Your task to perform on an android device: check data usage Image 0: 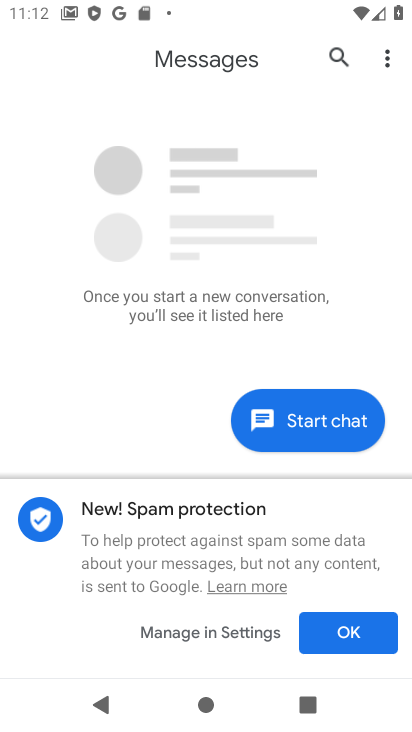
Step 0: press back button
Your task to perform on an android device: check data usage Image 1: 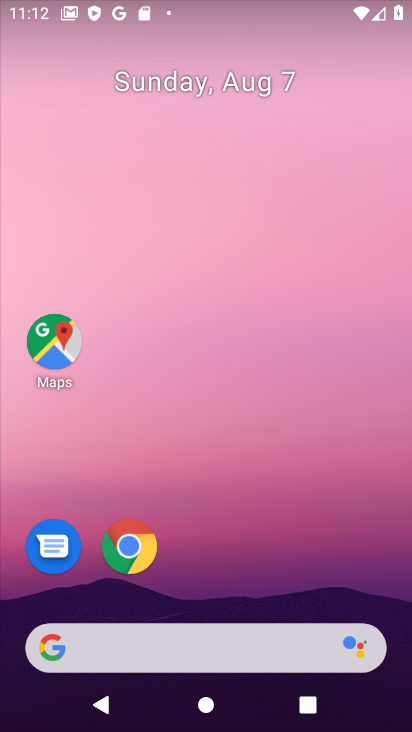
Step 1: drag from (167, 498) to (240, 270)
Your task to perform on an android device: check data usage Image 2: 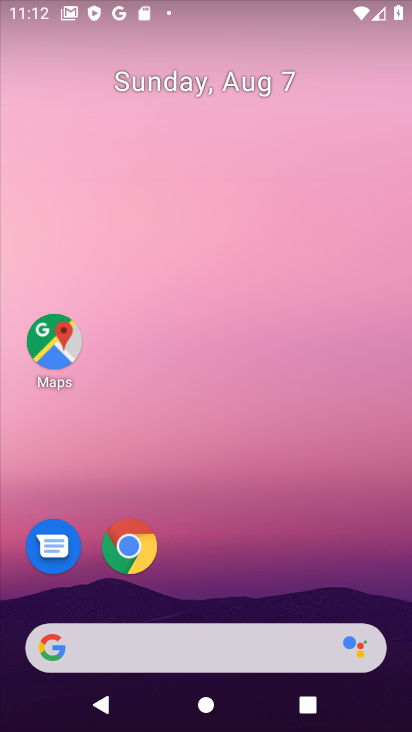
Step 2: drag from (239, 500) to (201, 193)
Your task to perform on an android device: check data usage Image 3: 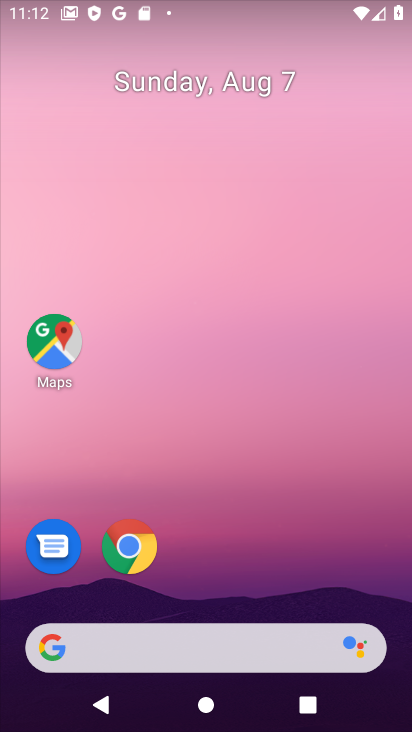
Step 3: drag from (241, 587) to (217, 371)
Your task to perform on an android device: check data usage Image 4: 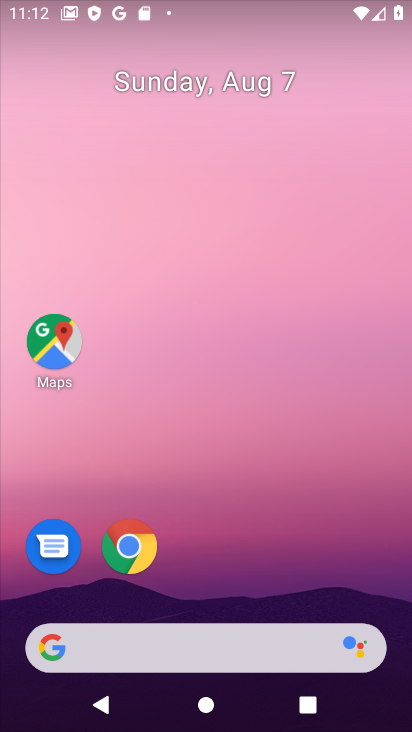
Step 4: drag from (247, 502) to (232, 64)
Your task to perform on an android device: check data usage Image 5: 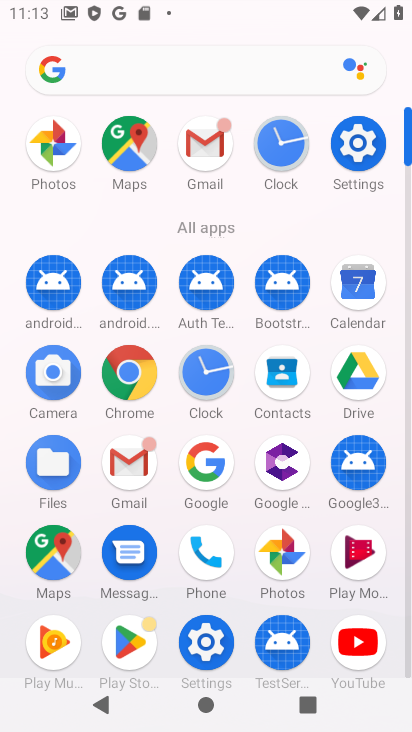
Step 5: click (347, 153)
Your task to perform on an android device: check data usage Image 6: 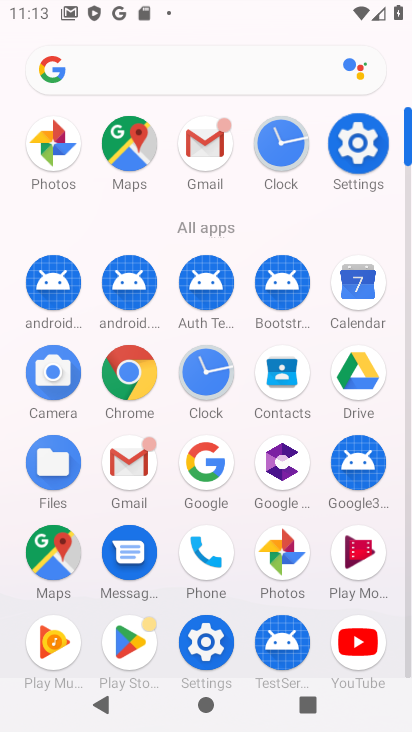
Step 6: click (353, 153)
Your task to perform on an android device: check data usage Image 7: 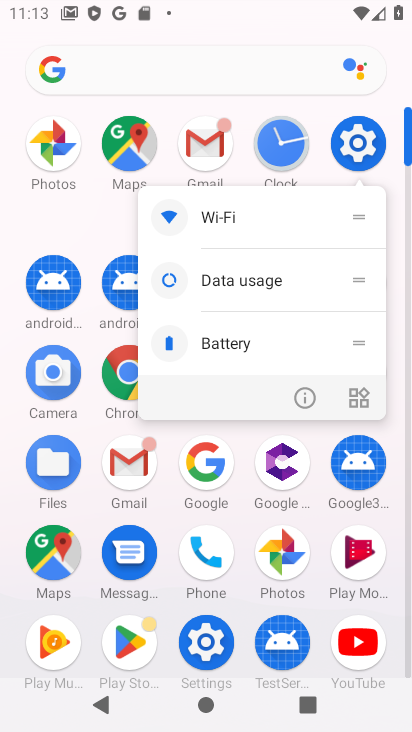
Step 7: click (361, 147)
Your task to perform on an android device: check data usage Image 8: 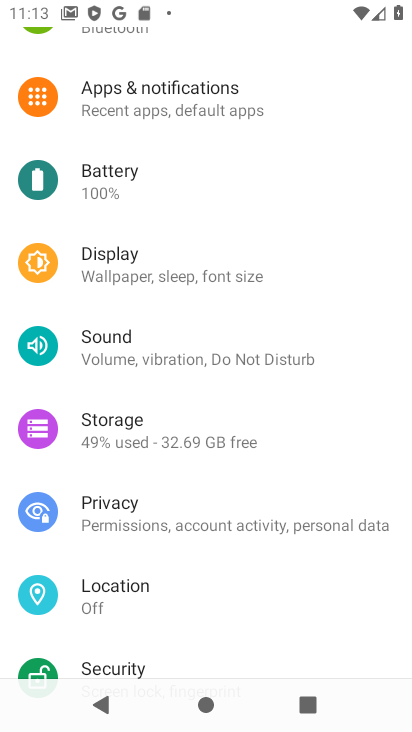
Step 8: drag from (170, 114) to (236, 568)
Your task to perform on an android device: check data usage Image 9: 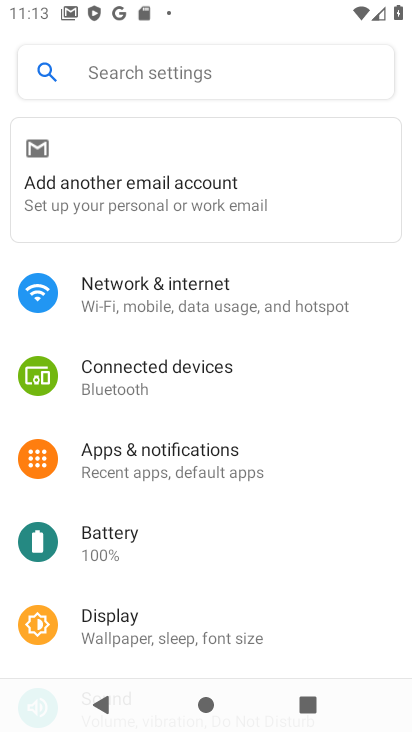
Step 9: drag from (149, 224) to (198, 520)
Your task to perform on an android device: check data usage Image 10: 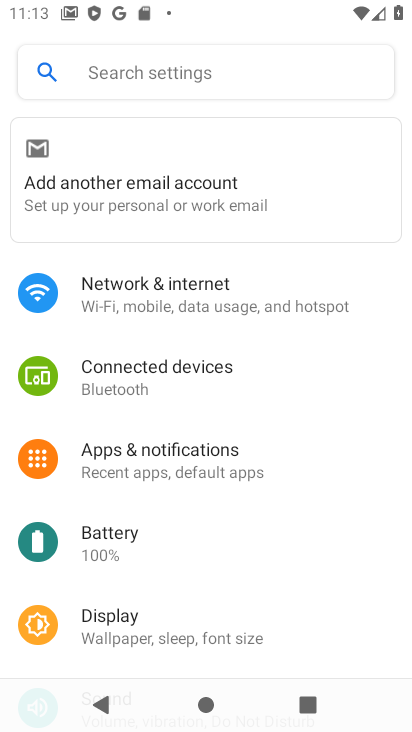
Step 10: drag from (136, 216) to (196, 528)
Your task to perform on an android device: check data usage Image 11: 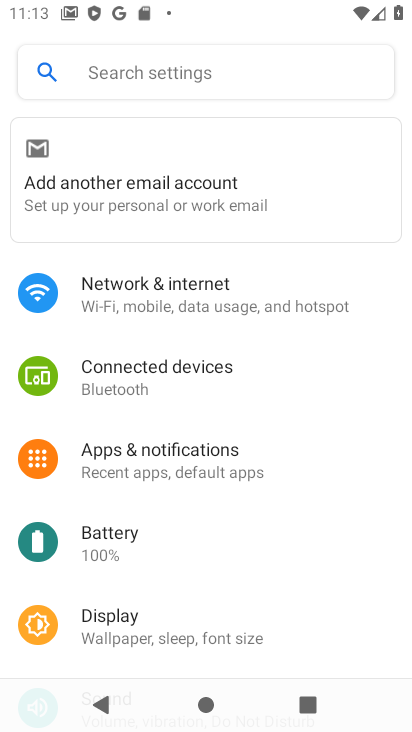
Step 11: click (146, 296)
Your task to perform on an android device: check data usage Image 12: 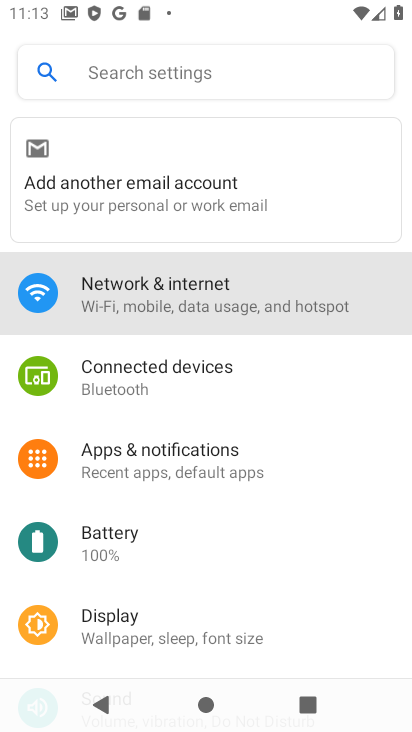
Step 12: click (146, 296)
Your task to perform on an android device: check data usage Image 13: 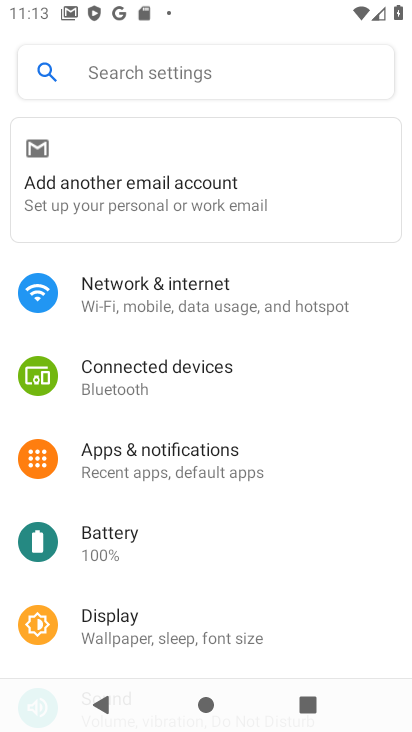
Step 13: click (157, 305)
Your task to perform on an android device: check data usage Image 14: 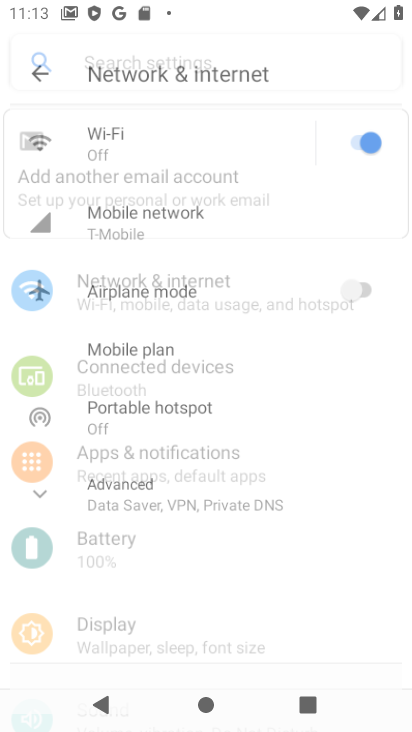
Step 14: click (162, 305)
Your task to perform on an android device: check data usage Image 15: 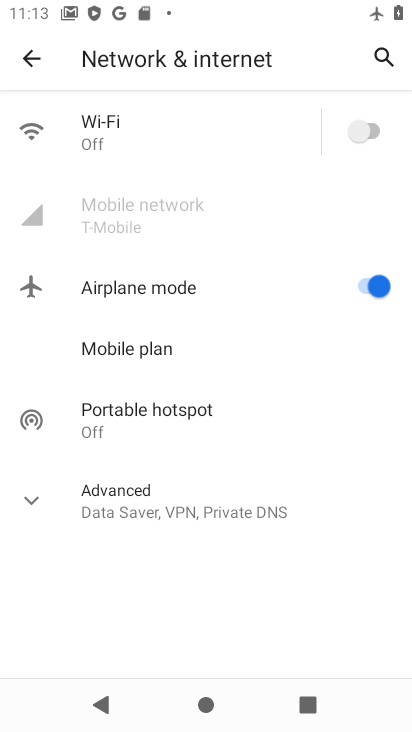
Step 15: click (144, 215)
Your task to perform on an android device: check data usage Image 16: 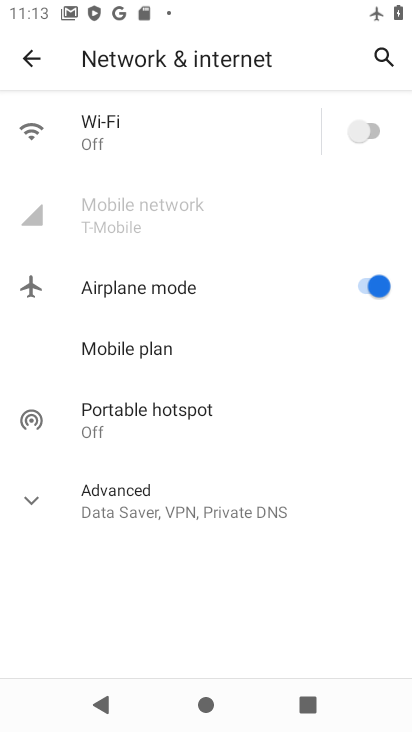
Step 16: click (349, 130)
Your task to perform on an android device: check data usage Image 17: 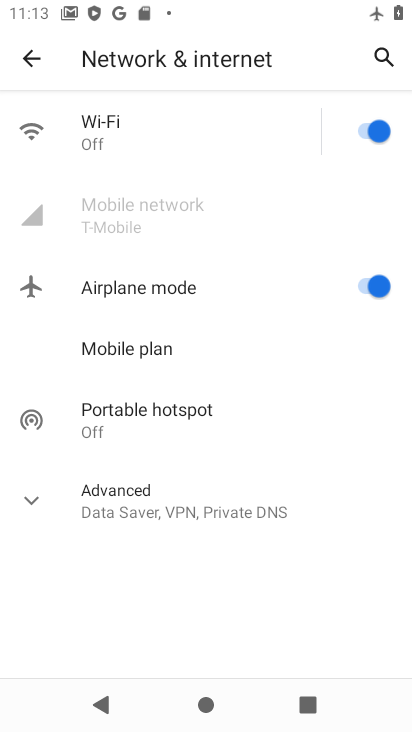
Step 17: click (374, 280)
Your task to perform on an android device: check data usage Image 18: 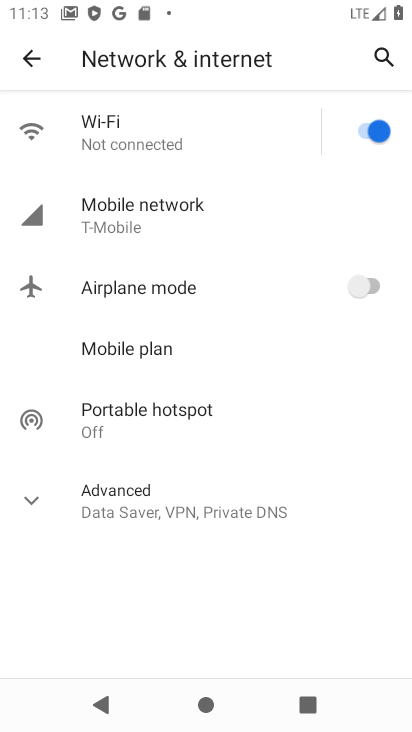
Step 18: click (124, 213)
Your task to perform on an android device: check data usage Image 19: 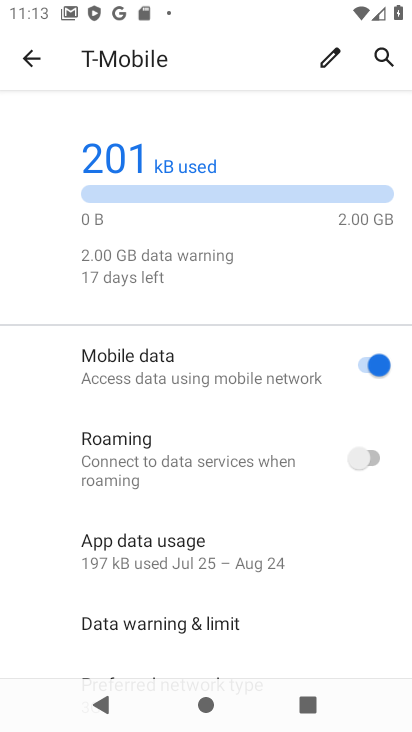
Step 19: click (127, 535)
Your task to perform on an android device: check data usage Image 20: 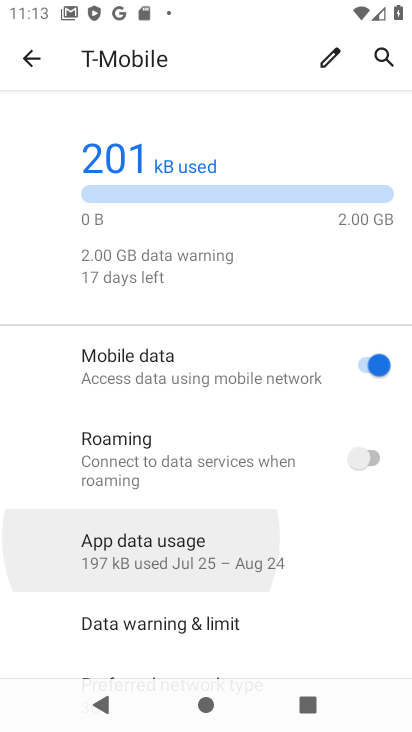
Step 20: click (130, 542)
Your task to perform on an android device: check data usage Image 21: 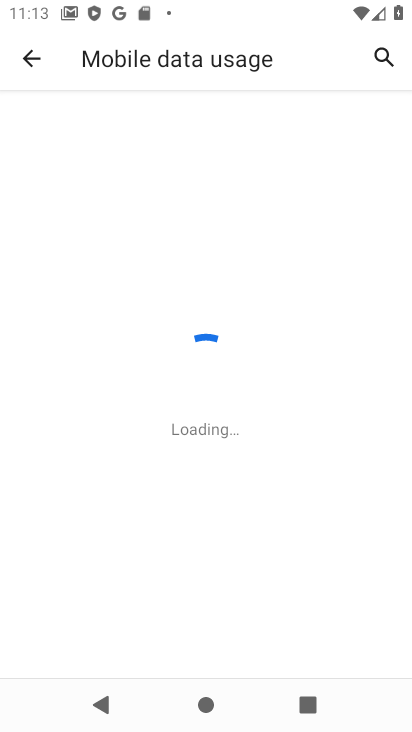
Step 21: task complete